Your task to perform on an android device: What's the weather? Image 0: 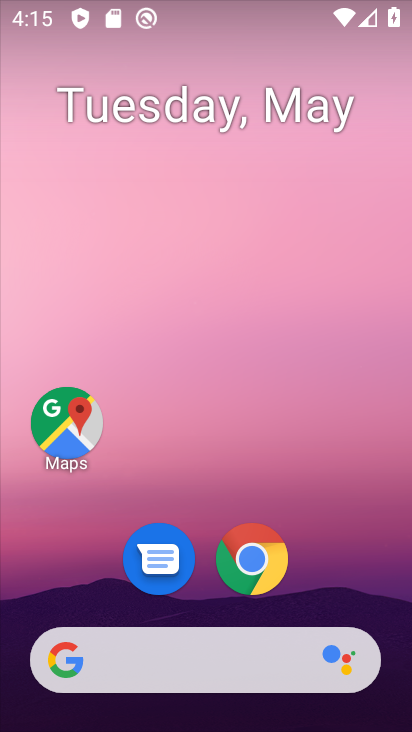
Step 0: drag from (33, 237) to (348, 221)
Your task to perform on an android device: What's the weather? Image 1: 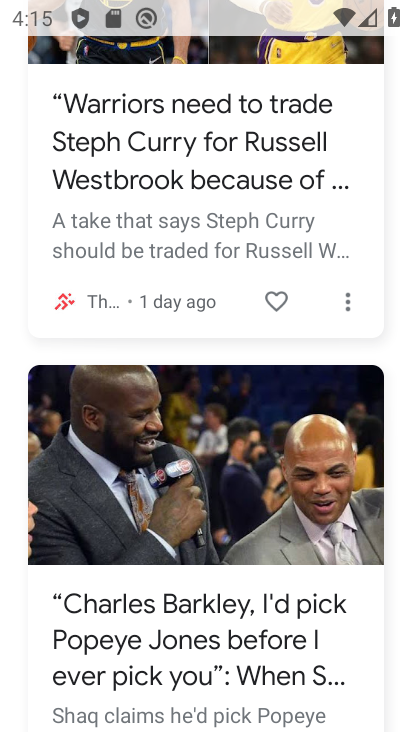
Step 1: drag from (194, 174) to (224, 673)
Your task to perform on an android device: What's the weather? Image 2: 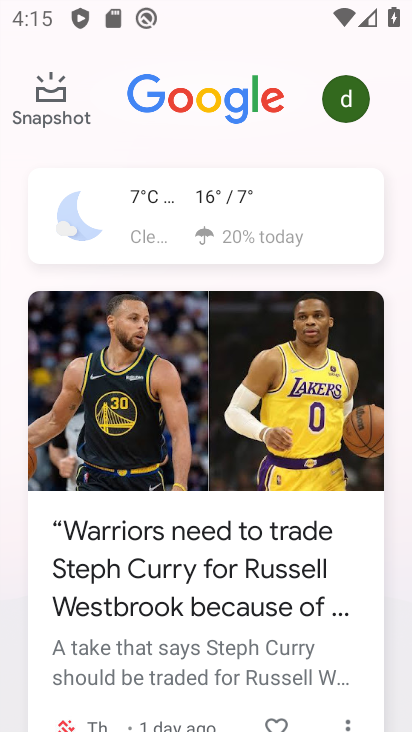
Step 2: click (216, 235)
Your task to perform on an android device: What's the weather? Image 3: 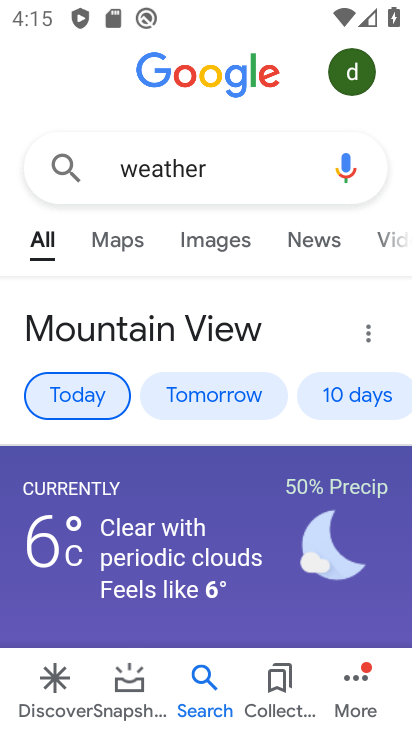
Step 3: task complete